Your task to perform on an android device: Go to internet settings Image 0: 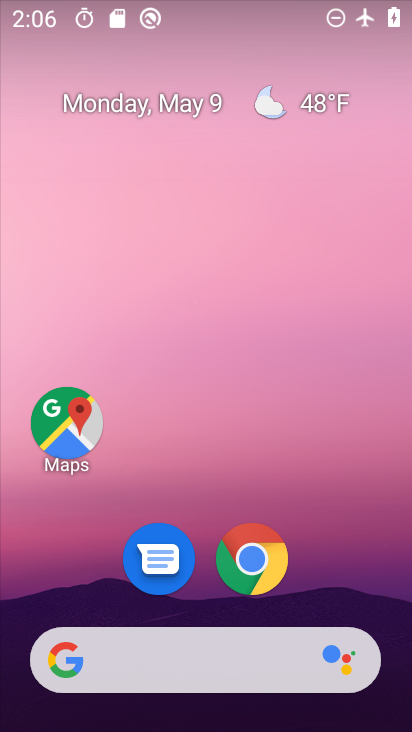
Step 0: drag from (207, 590) to (210, 213)
Your task to perform on an android device: Go to internet settings Image 1: 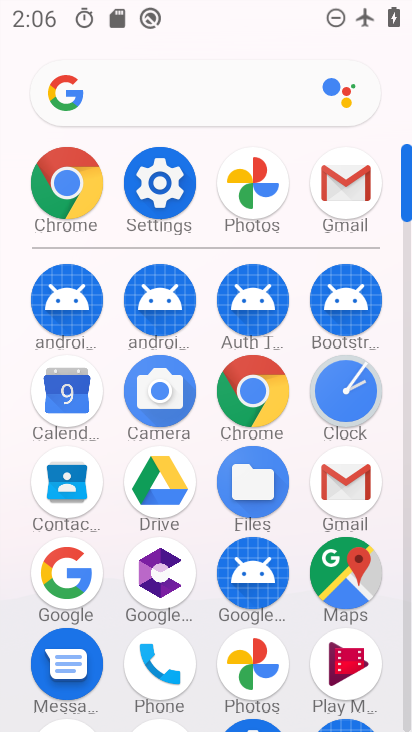
Step 1: click (156, 193)
Your task to perform on an android device: Go to internet settings Image 2: 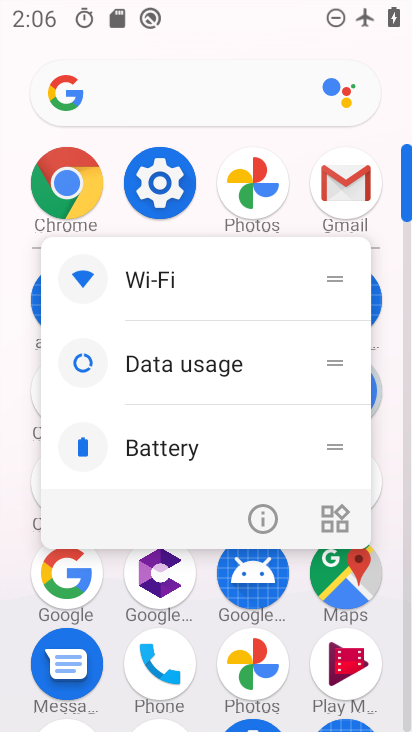
Step 2: click (259, 529)
Your task to perform on an android device: Go to internet settings Image 3: 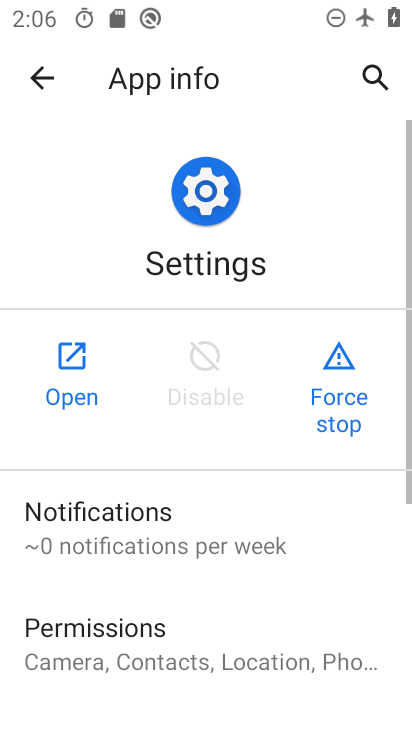
Step 3: click (69, 381)
Your task to perform on an android device: Go to internet settings Image 4: 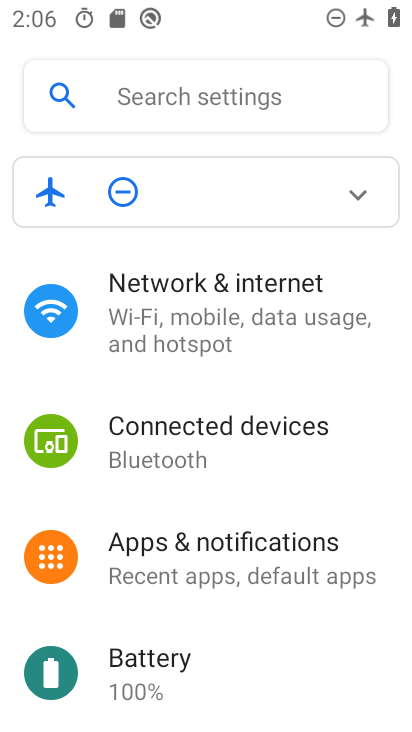
Step 4: click (163, 304)
Your task to perform on an android device: Go to internet settings Image 5: 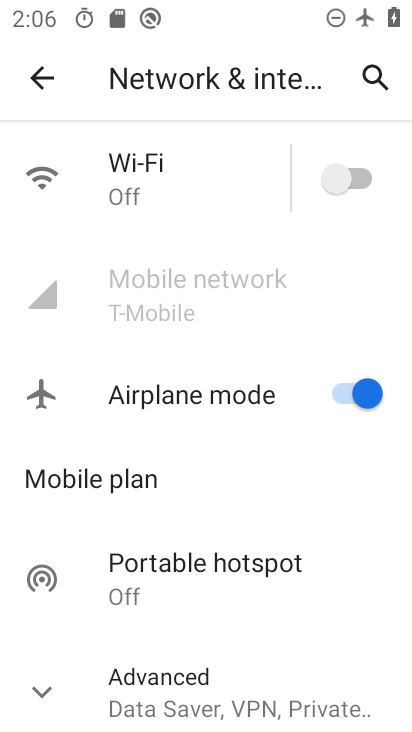
Step 5: drag from (214, 553) to (301, 167)
Your task to perform on an android device: Go to internet settings Image 6: 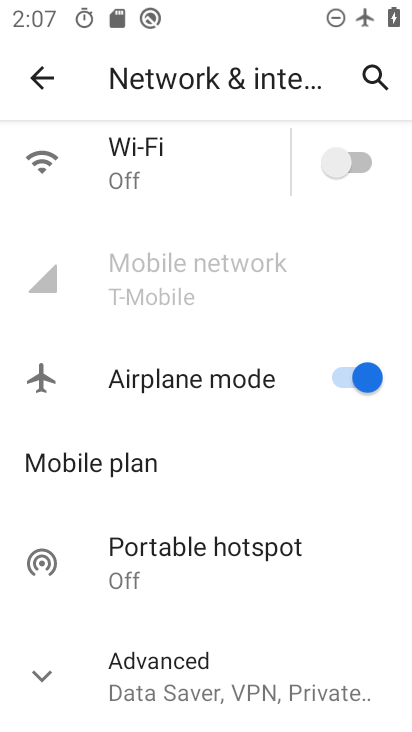
Step 6: click (249, 260)
Your task to perform on an android device: Go to internet settings Image 7: 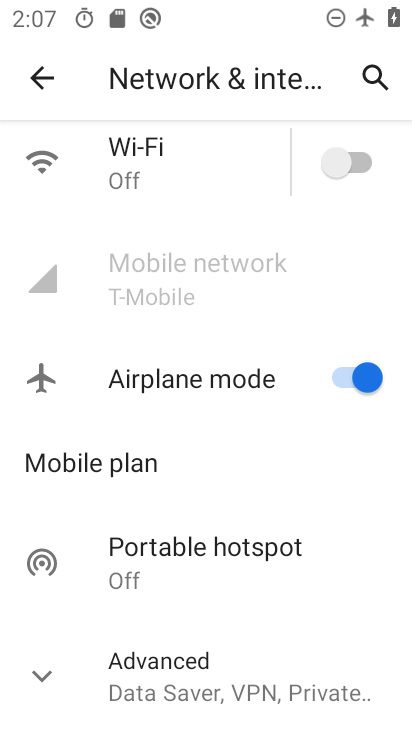
Step 7: click (248, 262)
Your task to perform on an android device: Go to internet settings Image 8: 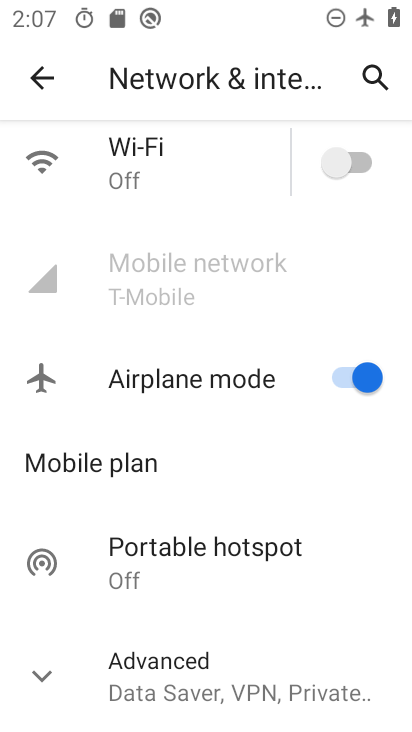
Step 8: task complete